Your task to perform on an android device: Open ESPN.com Image 0: 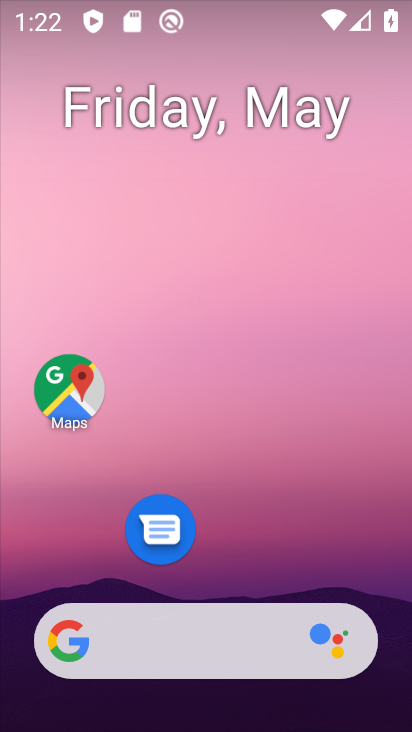
Step 0: drag from (206, 568) to (237, 123)
Your task to perform on an android device: Open ESPN.com Image 1: 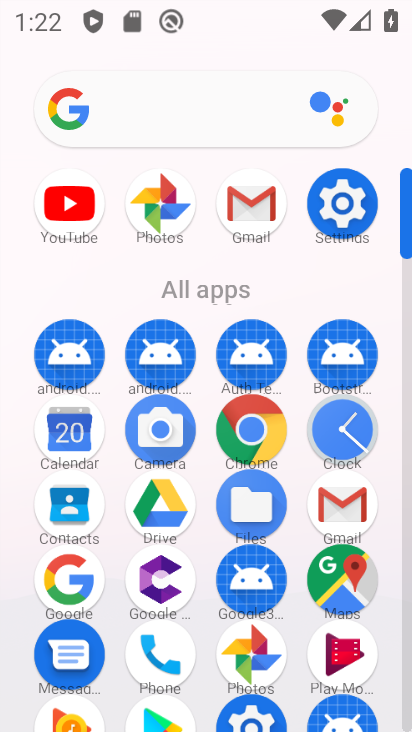
Step 1: click (205, 119)
Your task to perform on an android device: Open ESPN.com Image 2: 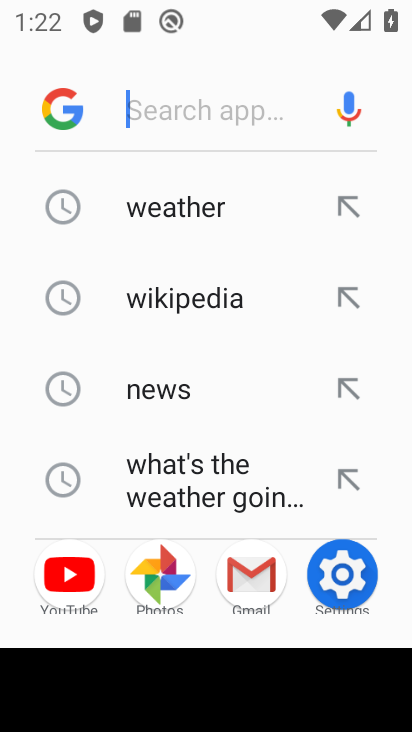
Step 2: drag from (142, 475) to (196, 82)
Your task to perform on an android device: Open ESPN.com Image 3: 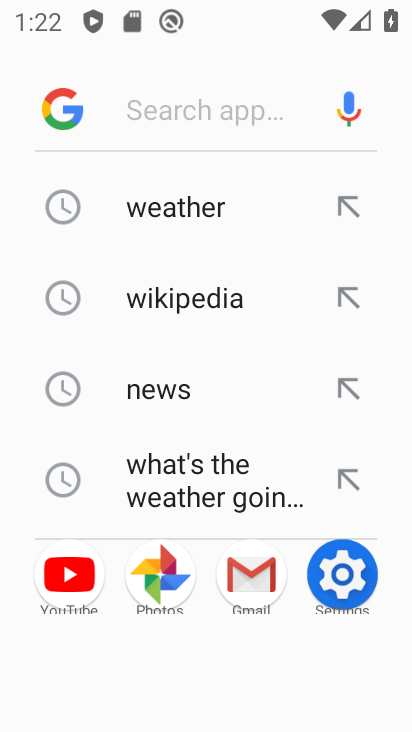
Step 3: type "espn"
Your task to perform on an android device: Open ESPN.com Image 4: 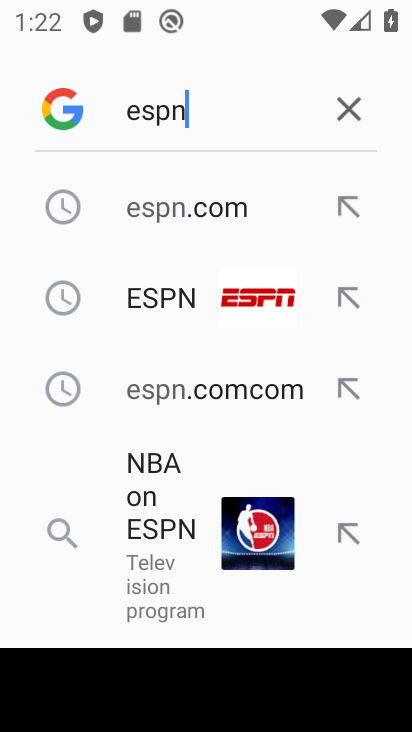
Step 4: click (136, 201)
Your task to perform on an android device: Open ESPN.com Image 5: 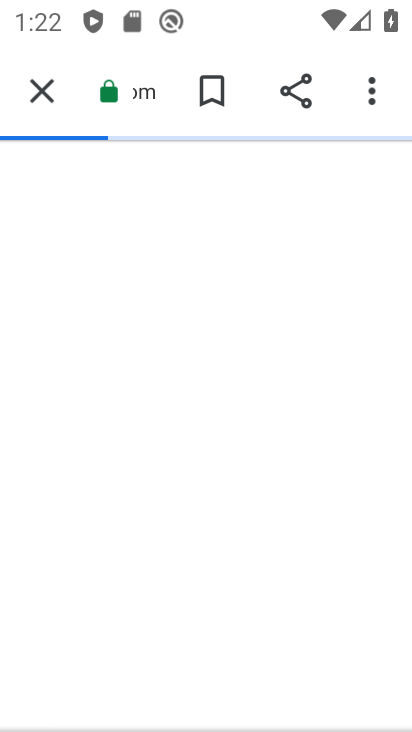
Step 5: task complete